Your task to perform on an android device: Play the last video I watched on Youtube Image 0: 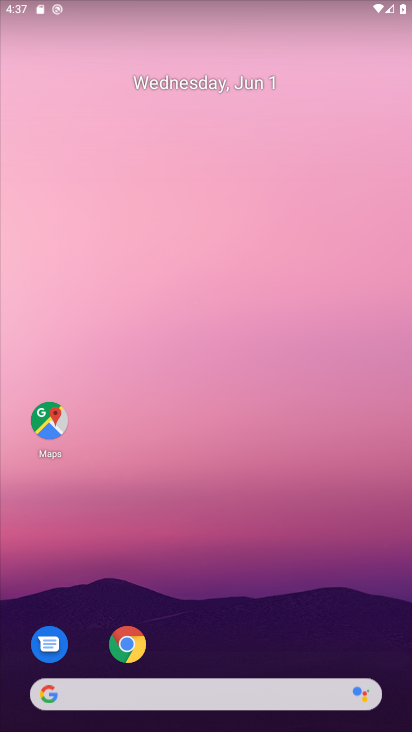
Step 0: drag from (211, 665) to (325, 148)
Your task to perform on an android device: Play the last video I watched on Youtube Image 1: 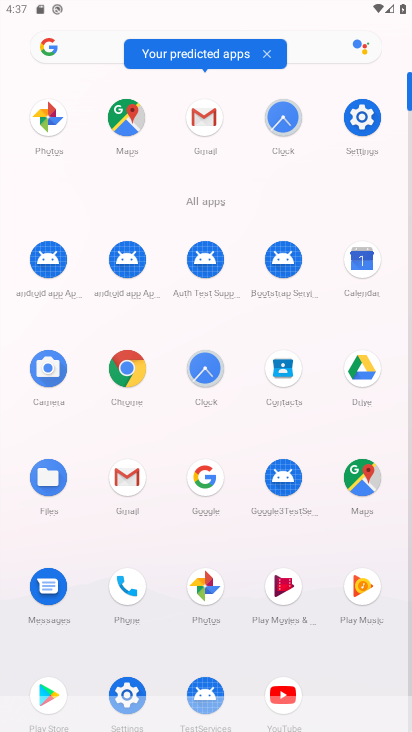
Step 1: click (294, 708)
Your task to perform on an android device: Play the last video I watched on Youtube Image 2: 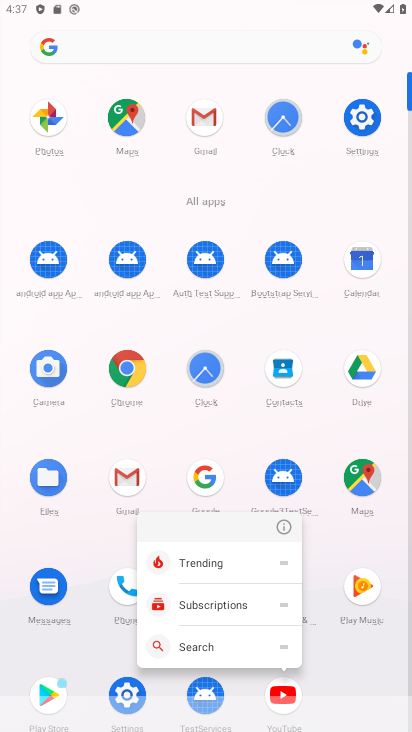
Step 2: click (282, 699)
Your task to perform on an android device: Play the last video I watched on Youtube Image 3: 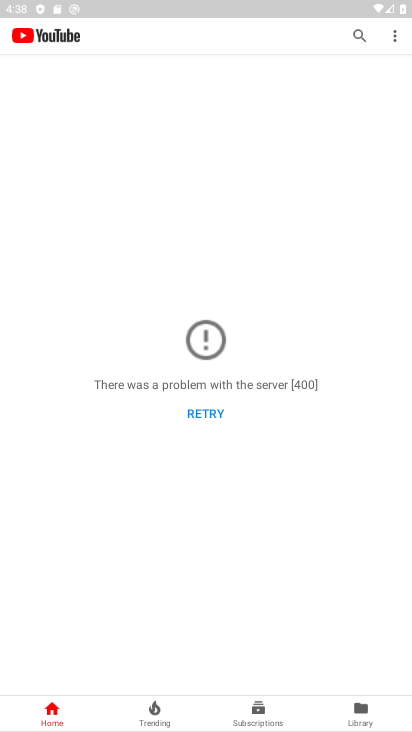
Step 3: click (357, 717)
Your task to perform on an android device: Play the last video I watched on Youtube Image 4: 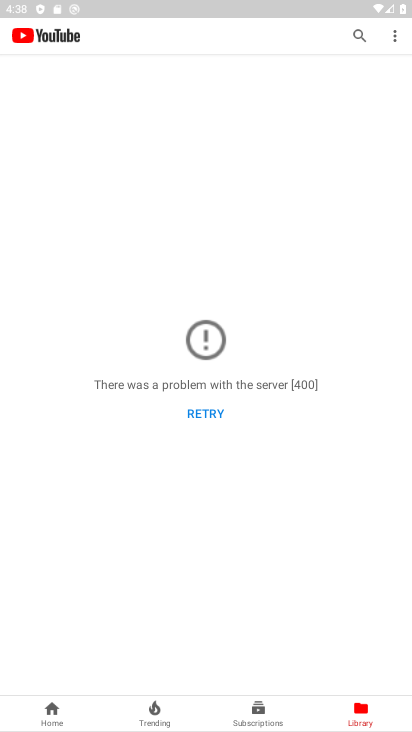
Step 4: task complete